Your task to perform on an android device: Go to Reddit.com Image 0: 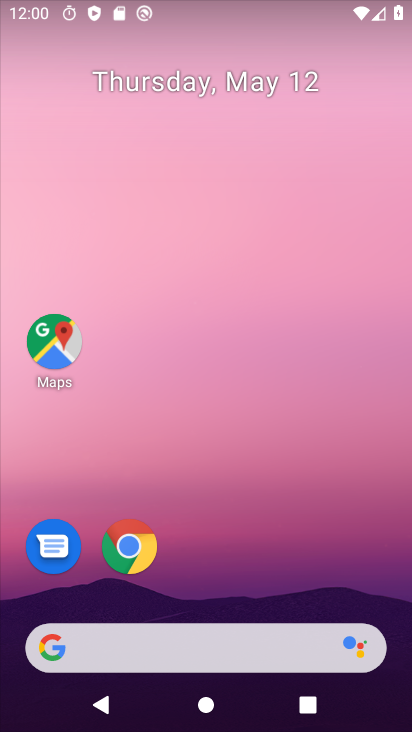
Step 0: click (194, 652)
Your task to perform on an android device: Go to Reddit.com Image 1: 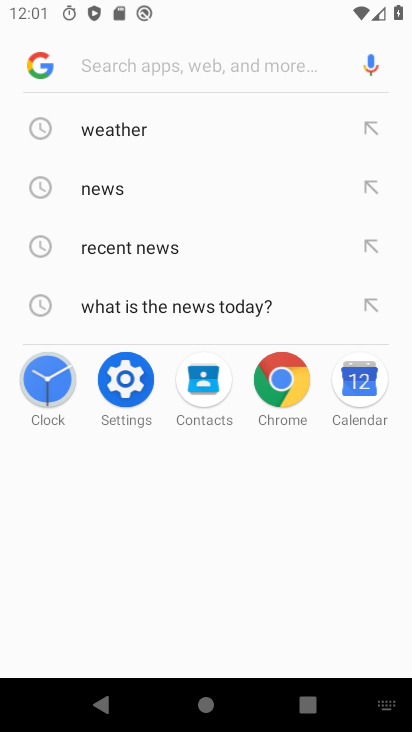
Step 1: type "Reddit.com"
Your task to perform on an android device: Go to Reddit.com Image 2: 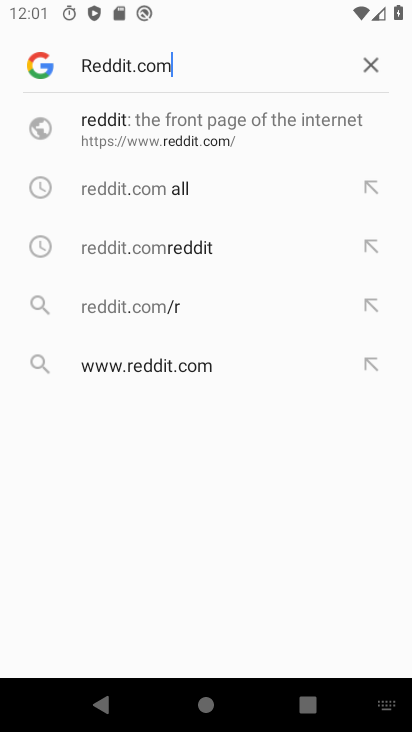
Step 2: click (261, 155)
Your task to perform on an android device: Go to Reddit.com Image 3: 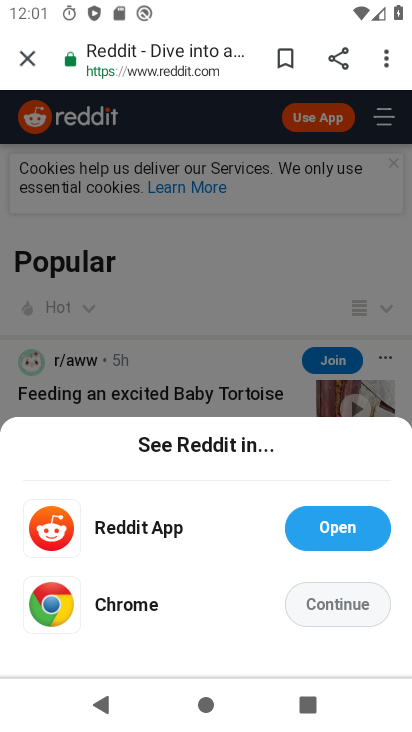
Step 3: click (344, 602)
Your task to perform on an android device: Go to Reddit.com Image 4: 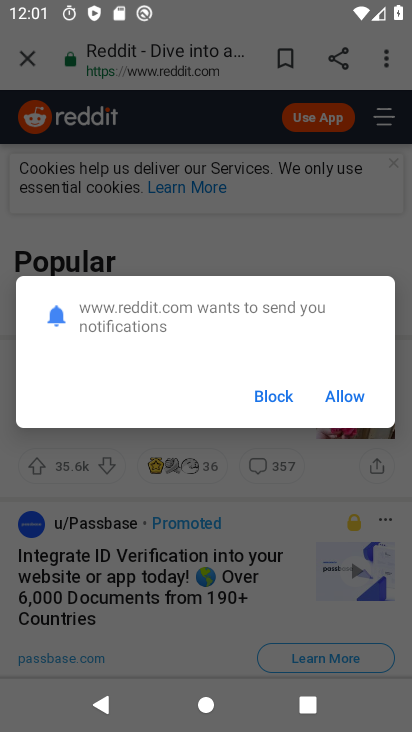
Step 4: click (350, 406)
Your task to perform on an android device: Go to Reddit.com Image 5: 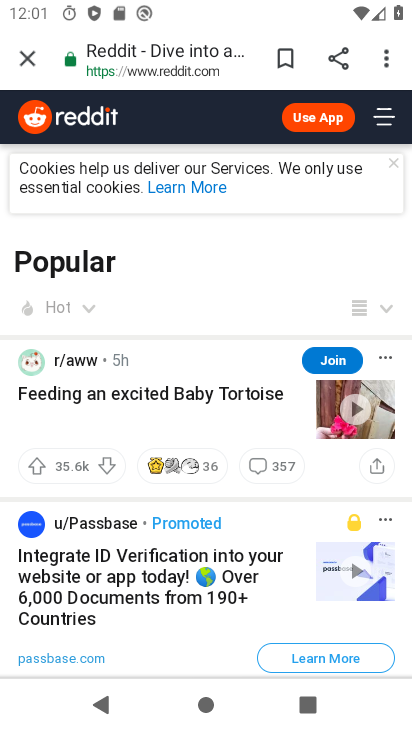
Step 5: task complete